Your task to perform on an android device: Open Chrome and go to settings Image 0: 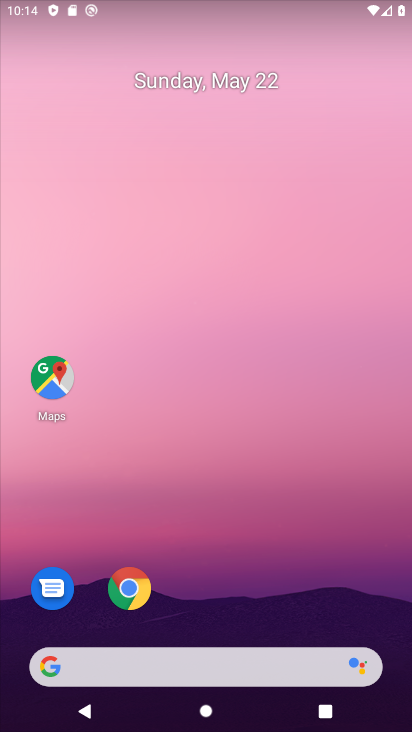
Step 0: click (124, 590)
Your task to perform on an android device: Open Chrome and go to settings Image 1: 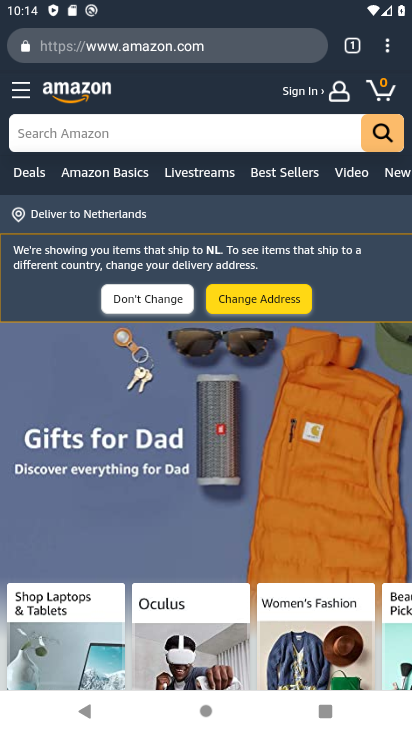
Step 1: click (390, 53)
Your task to perform on an android device: Open Chrome and go to settings Image 2: 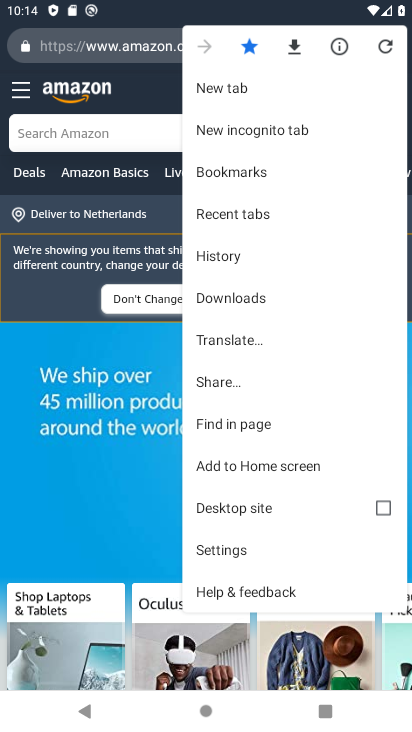
Step 2: click (222, 550)
Your task to perform on an android device: Open Chrome and go to settings Image 3: 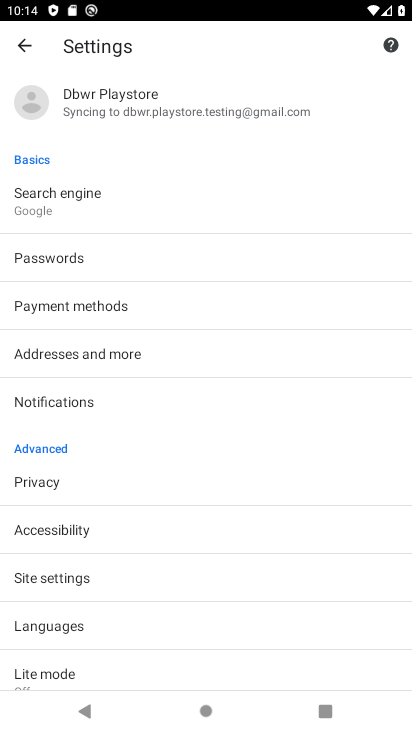
Step 3: task complete